Your task to perform on an android device: What's on my calendar tomorrow? Image 0: 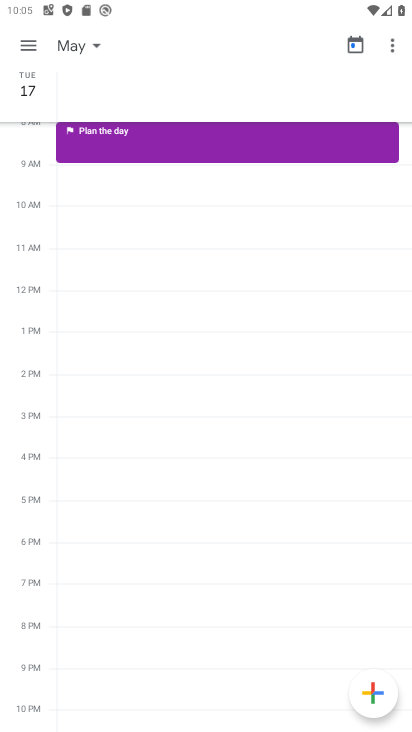
Step 0: click (94, 41)
Your task to perform on an android device: What's on my calendar tomorrow? Image 1: 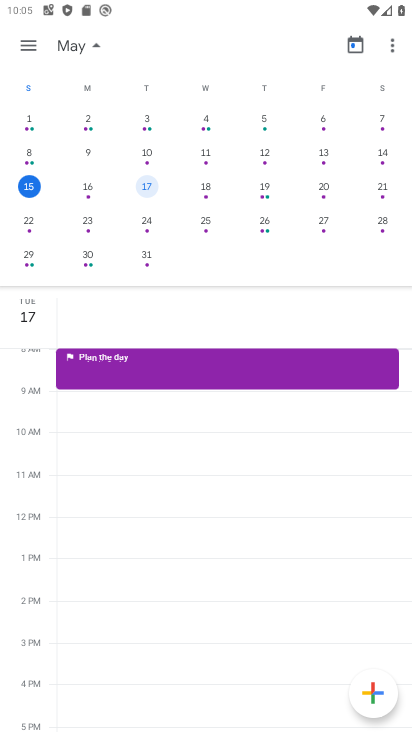
Step 1: click (82, 186)
Your task to perform on an android device: What's on my calendar tomorrow? Image 2: 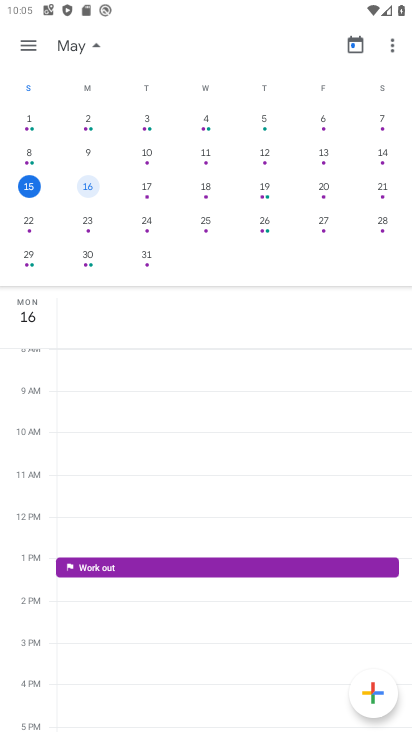
Step 2: task complete